Your task to perform on an android device: Clear the cart on ebay.com. Add "razer naga" to the cart on ebay.com, then select checkout. Image 0: 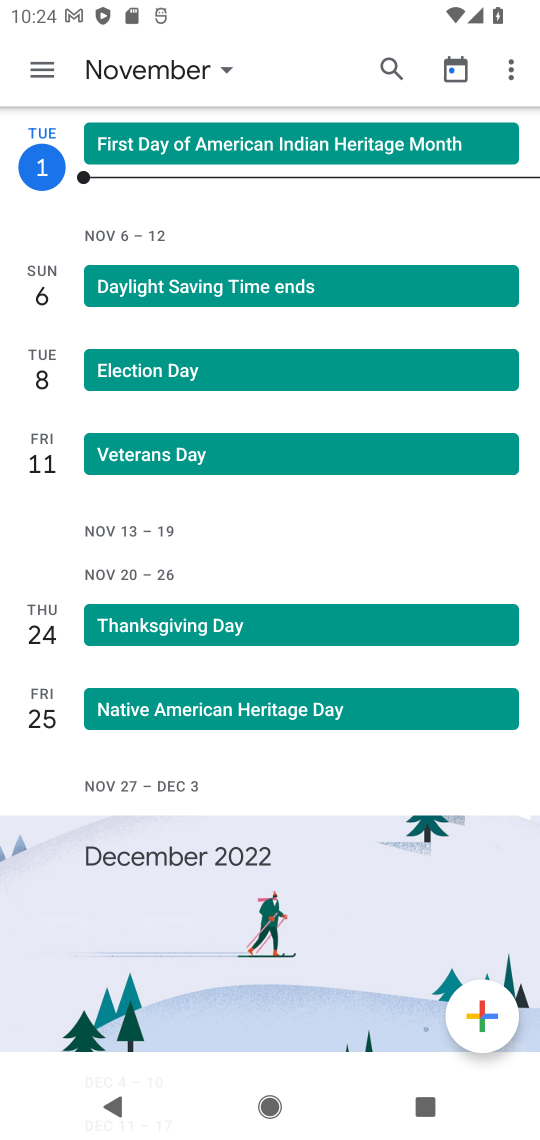
Step 0: press home button
Your task to perform on an android device: Clear the cart on ebay.com. Add "razer naga" to the cart on ebay.com, then select checkout. Image 1: 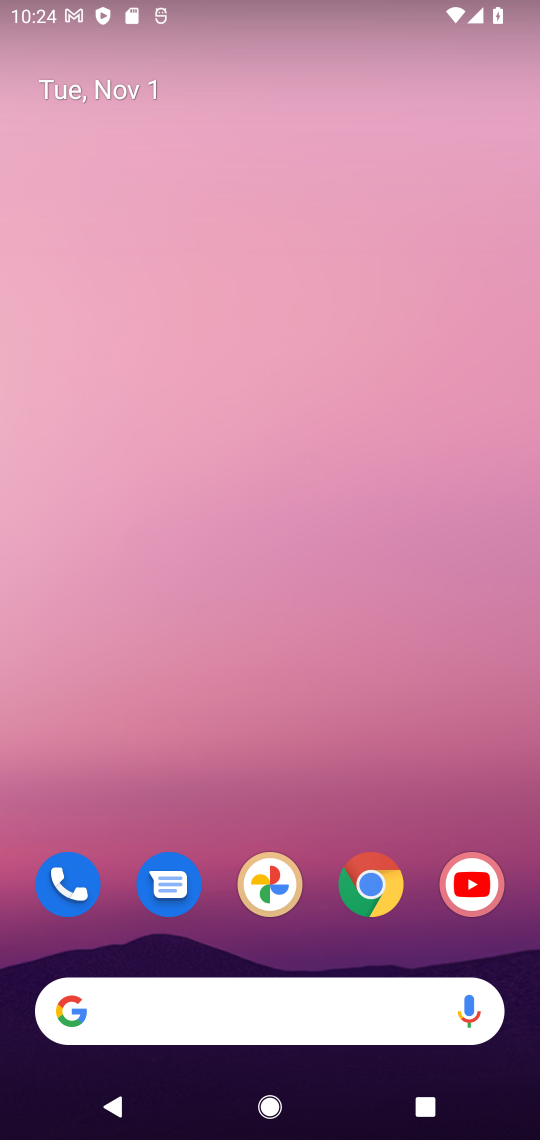
Step 1: click (368, 906)
Your task to perform on an android device: Clear the cart on ebay.com. Add "razer naga" to the cart on ebay.com, then select checkout. Image 2: 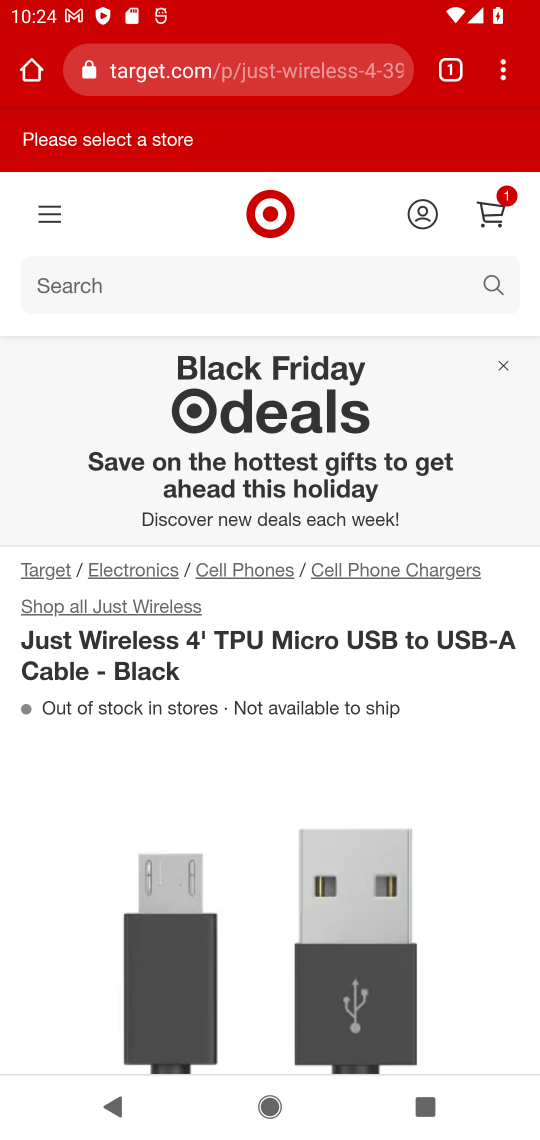
Step 2: click (233, 52)
Your task to perform on an android device: Clear the cart on ebay.com. Add "razer naga" to the cart on ebay.com, then select checkout. Image 3: 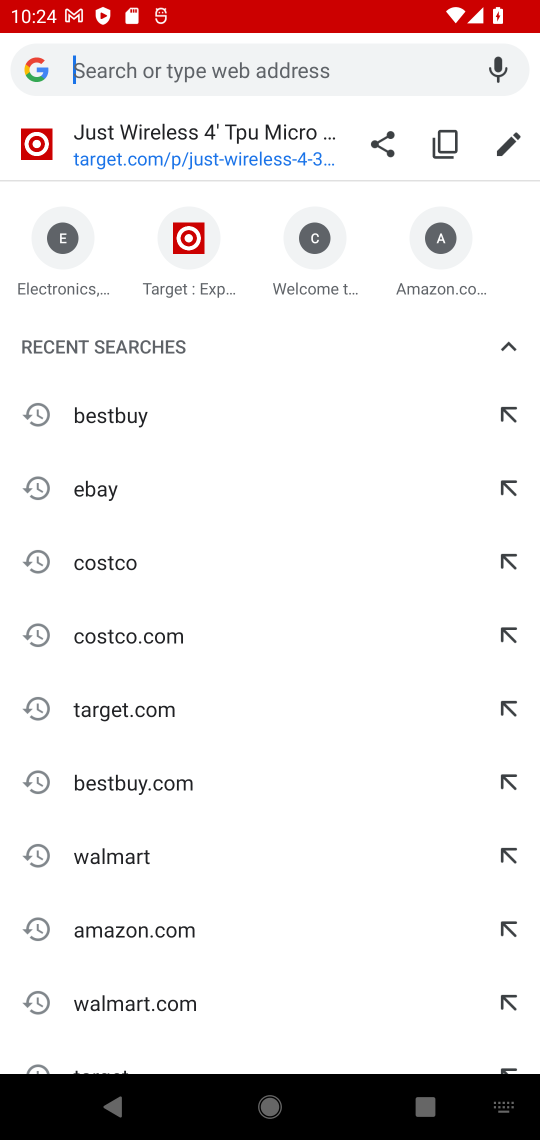
Step 3: type "ebay.com"
Your task to perform on an android device: Clear the cart on ebay.com. Add "razer naga" to the cart on ebay.com, then select checkout. Image 4: 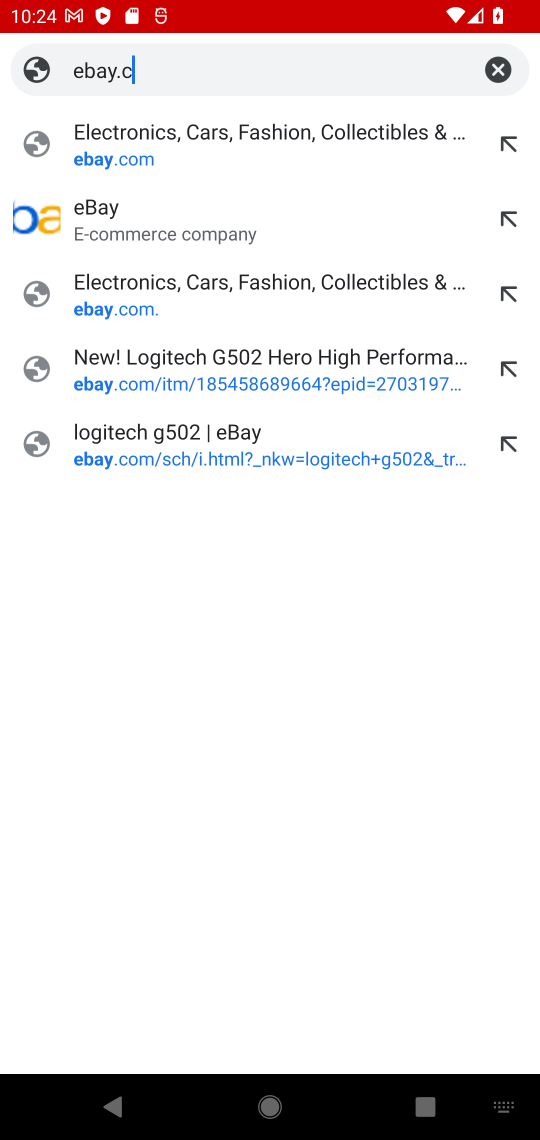
Step 4: type ""
Your task to perform on an android device: Clear the cart on ebay.com. Add "razer naga" to the cart on ebay.com, then select checkout. Image 5: 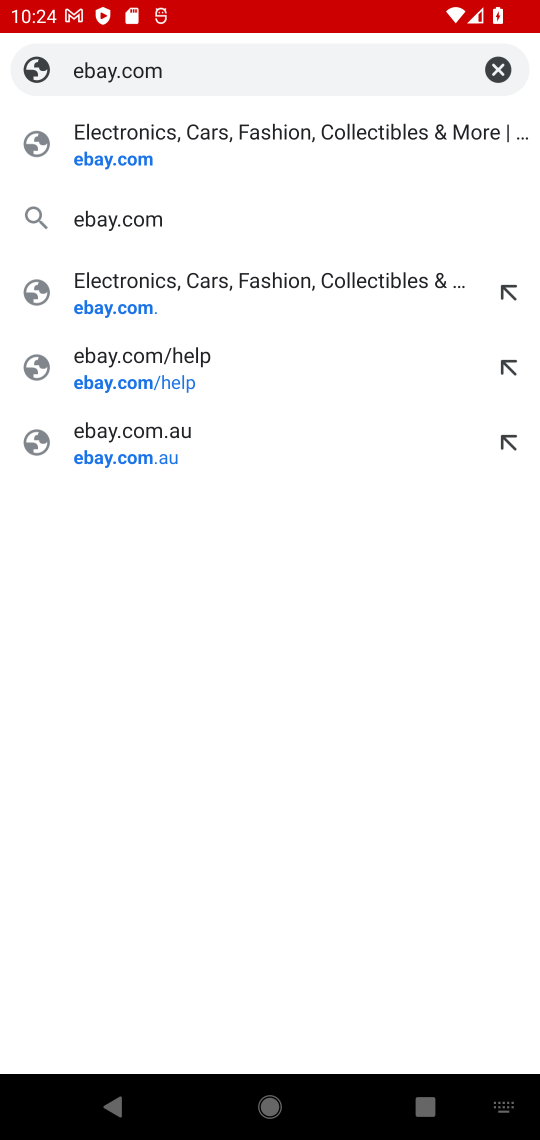
Step 5: press enter
Your task to perform on an android device: Clear the cart on ebay.com. Add "razer naga" to the cart on ebay.com, then select checkout. Image 6: 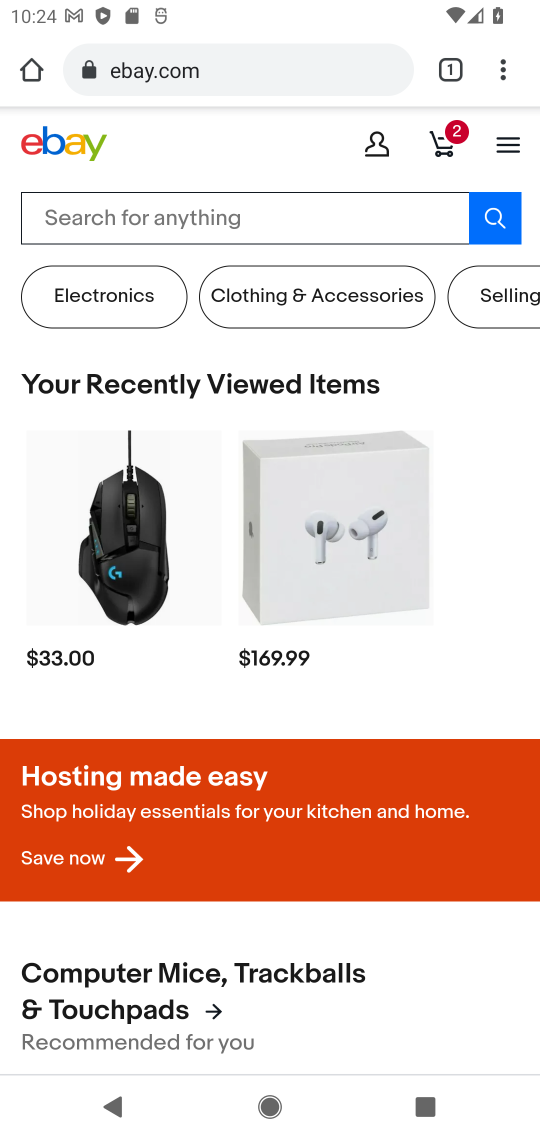
Step 6: click (438, 152)
Your task to perform on an android device: Clear the cart on ebay.com. Add "razer naga" to the cart on ebay.com, then select checkout. Image 7: 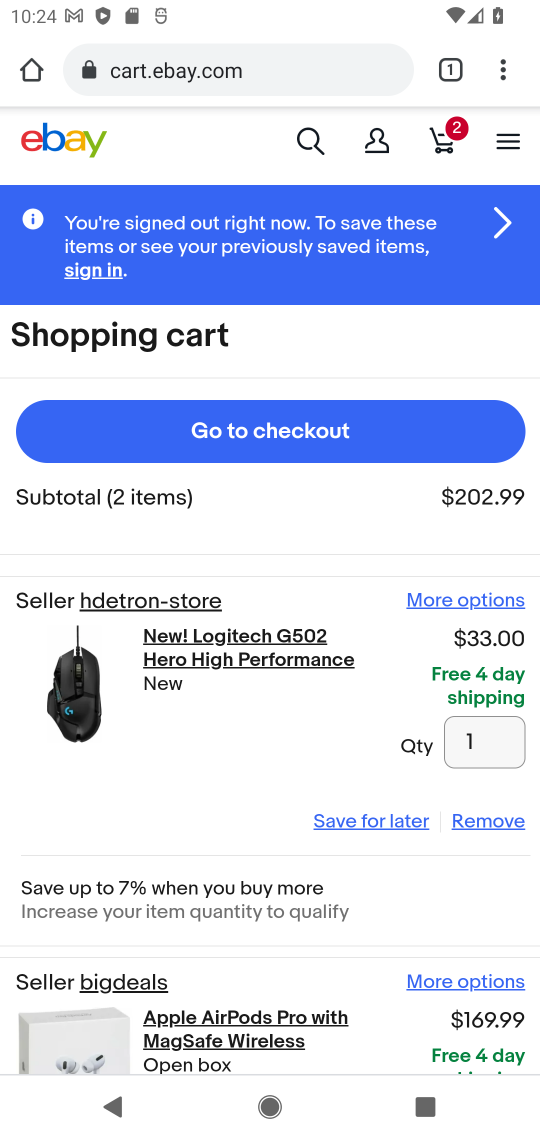
Step 7: click (495, 827)
Your task to perform on an android device: Clear the cart on ebay.com. Add "razer naga" to the cart on ebay.com, then select checkout. Image 8: 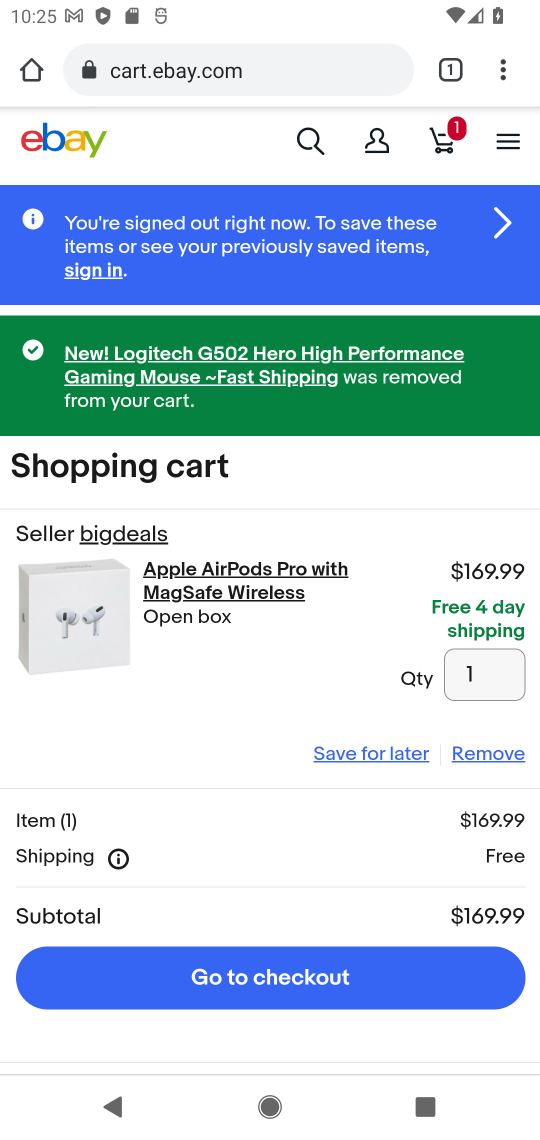
Step 8: click (488, 750)
Your task to perform on an android device: Clear the cart on ebay.com. Add "razer naga" to the cart on ebay.com, then select checkout. Image 9: 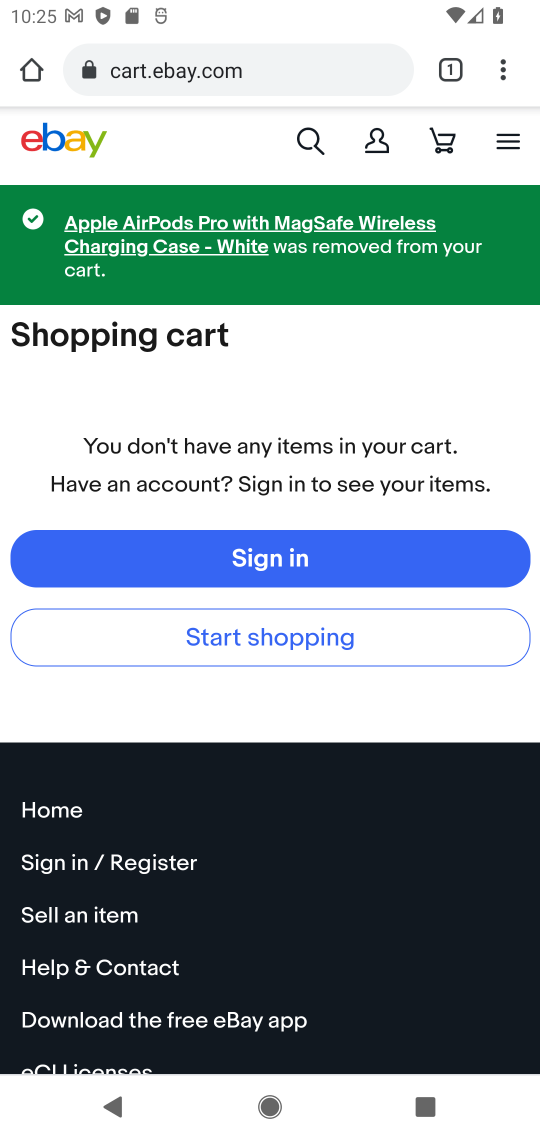
Step 9: click (302, 137)
Your task to perform on an android device: Clear the cart on ebay.com. Add "razer naga" to the cart on ebay.com, then select checkout. Image 10: 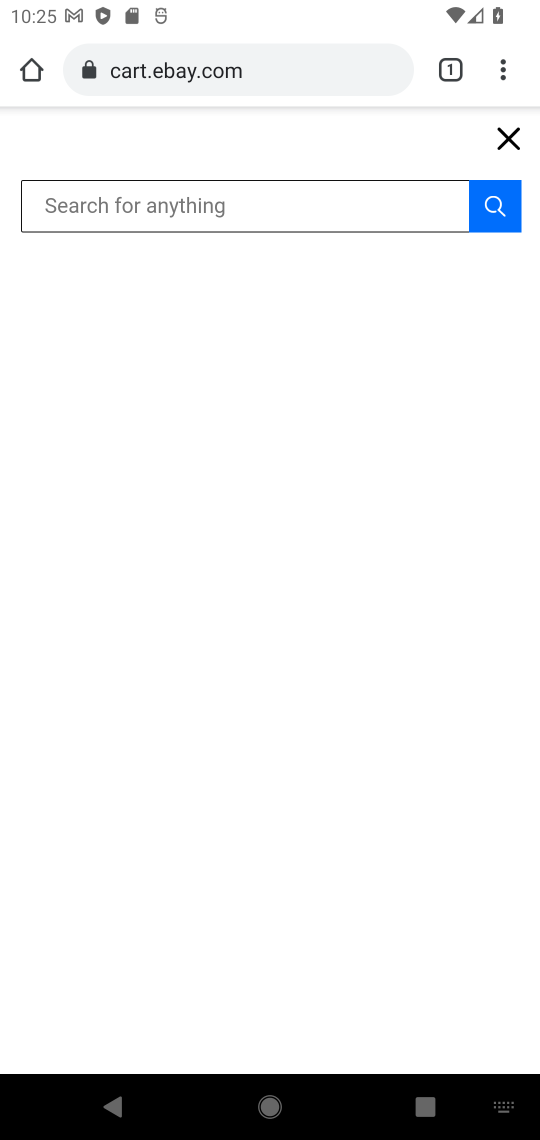
Step 10: type "razer naga"
Your task to perform on an android device: Clear the cart on ebay.com. Add "razer naga" to the cart on ebay.com, then select checkout. Image 11: 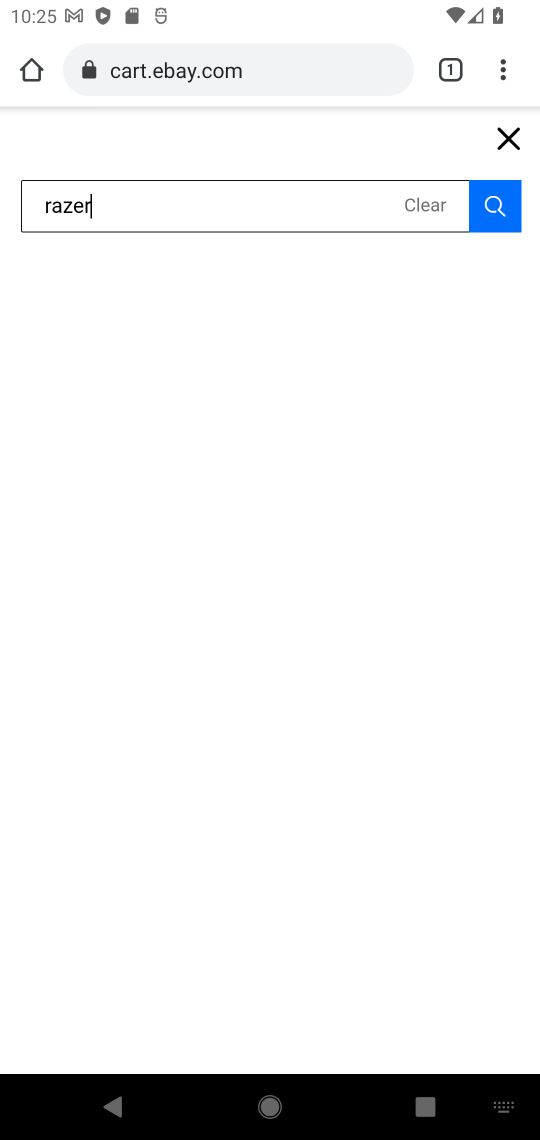
Step 11: type ""
Your task to perform on an android device: Clear the cart on ebay.com. Add "razer naga" to the cart on ebay.com, then select checkout. Image 12: 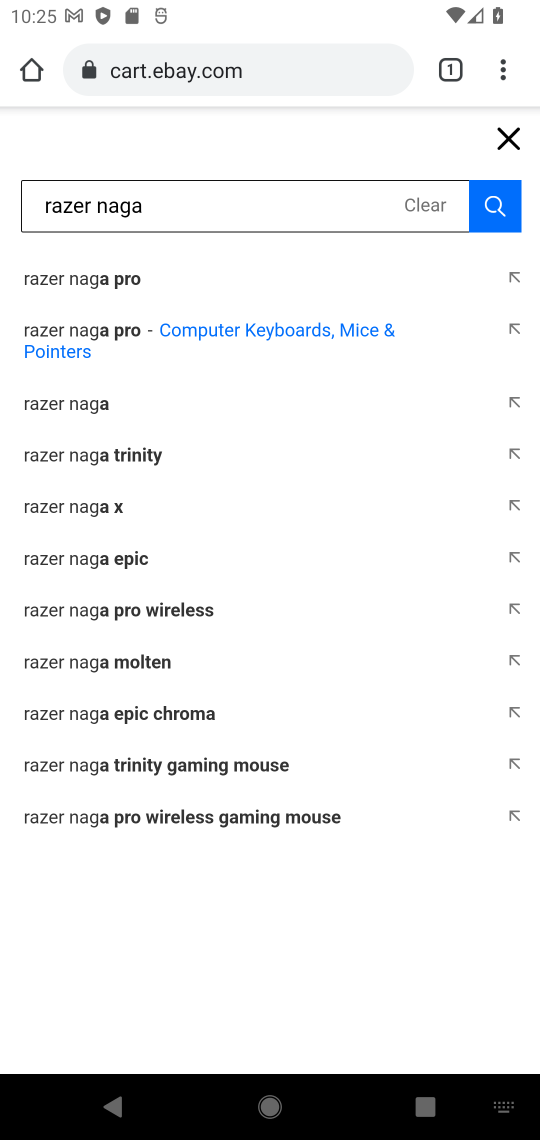
Step 12: press enter
Your task to perform on an android device: Clear the cart on ebay.com. Add "razer naga" to the cart on ebay.com, then select checkout. Image 13: 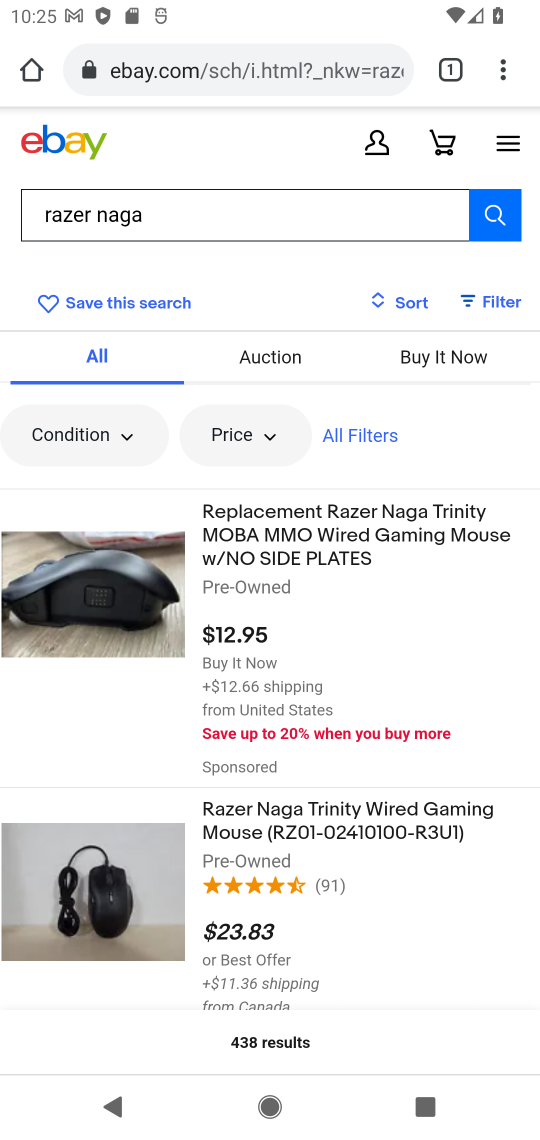
Step 13: click (320, 816)
Your task to perform on an android device: Clear the cart on ebay.com. Add "razer naga" to the cart on ebay.com, then select checkout. Image 14: 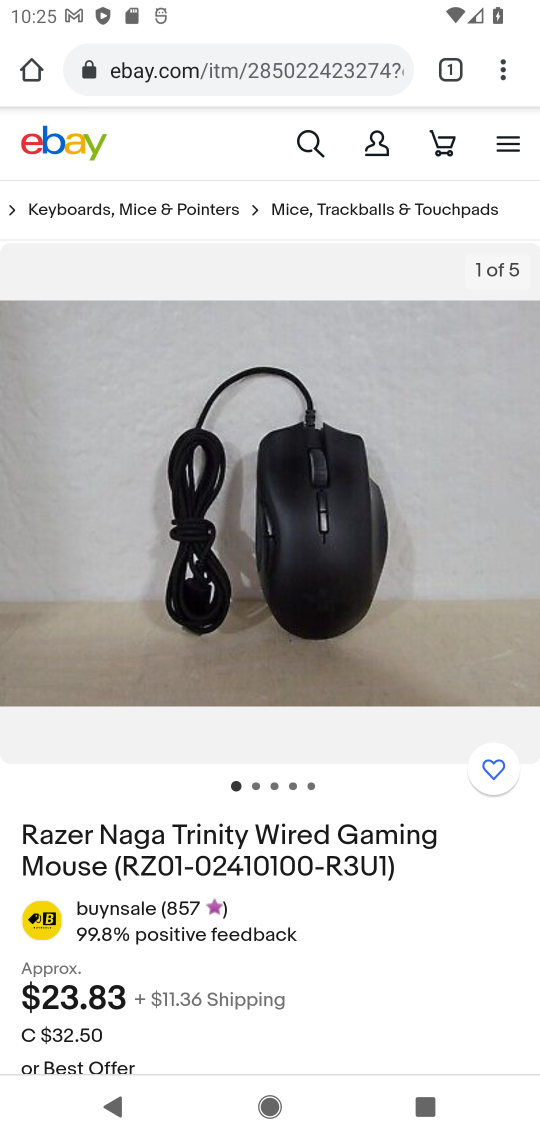
Step 14: drag from (201, 964) to (173, 525)
Your task to perform on an android device: Clear the cart on ebay.com. Add "razer naga" to the cart on ebay.com, then select checkout. Image 15: 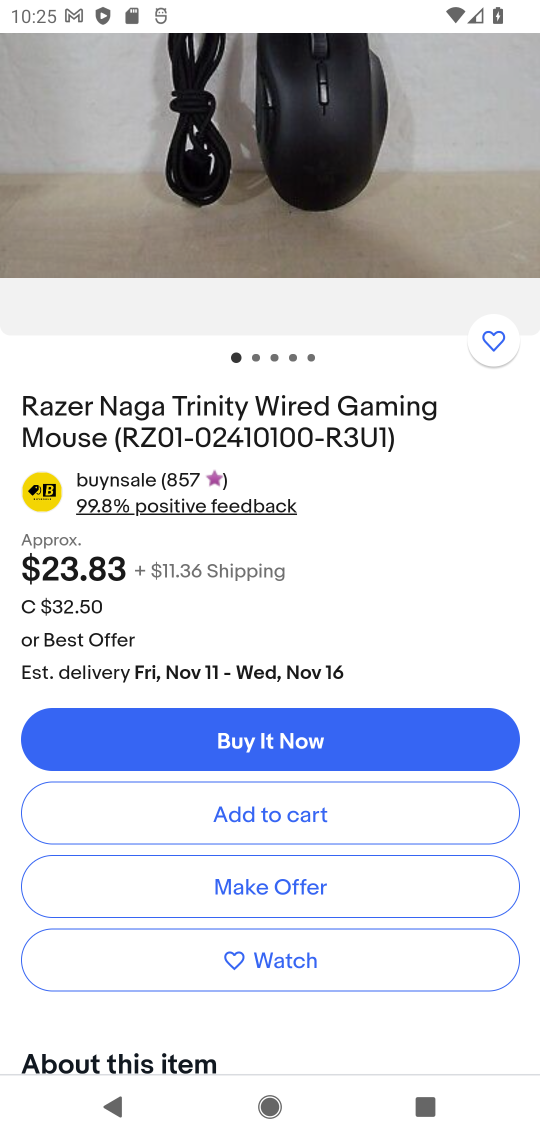
Step 15: click (324, 829)
Your task to perform on an android device: Clear the cart on ebay.com. Add "razer naga" to the cart on ebay.com, then select checkout. Image 16: 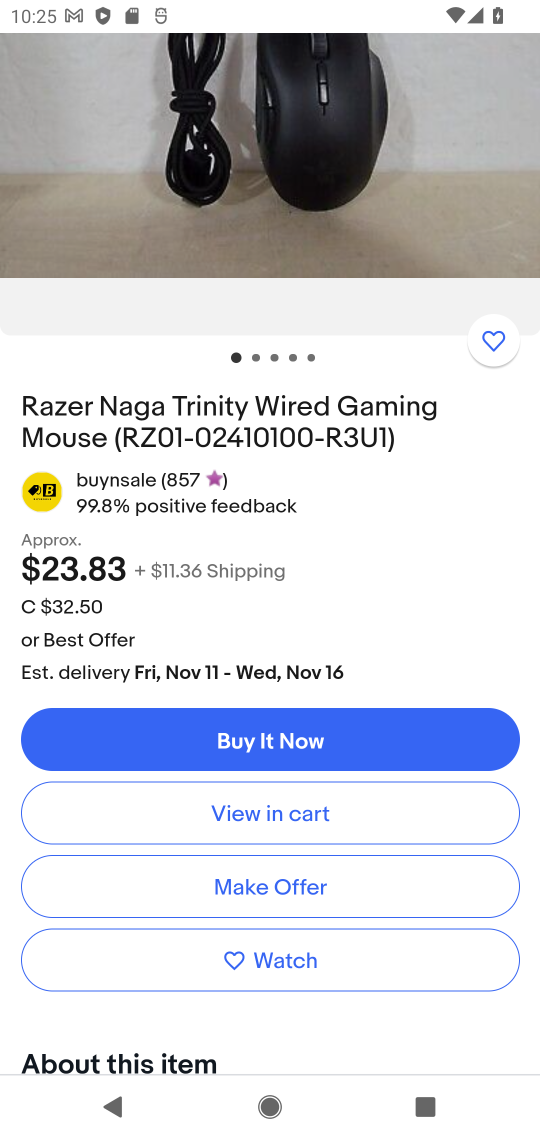
Step 16: click (319, 816)
Your task to perform on an android device: Clear the cart on ebay.com. Add "razer naga" to the cart on ebay.com, then select checkout. Image 17: 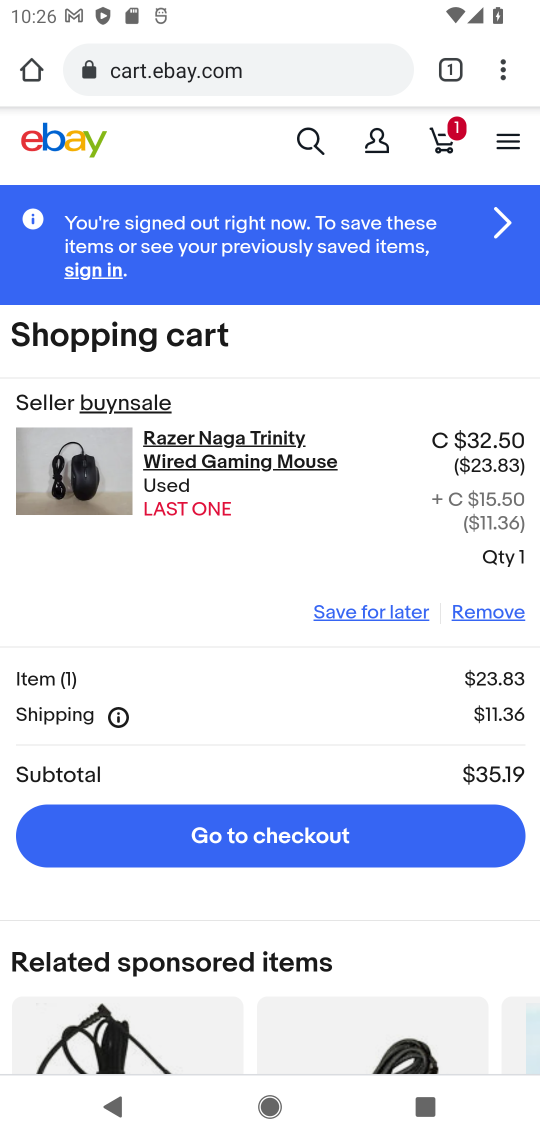
Step 17: click (322, 844)
Your task to perform on an android device: Clear the cart on ebay.com. Add "razer naga" to the cart on ebay.com, then select checkout. Image 18: 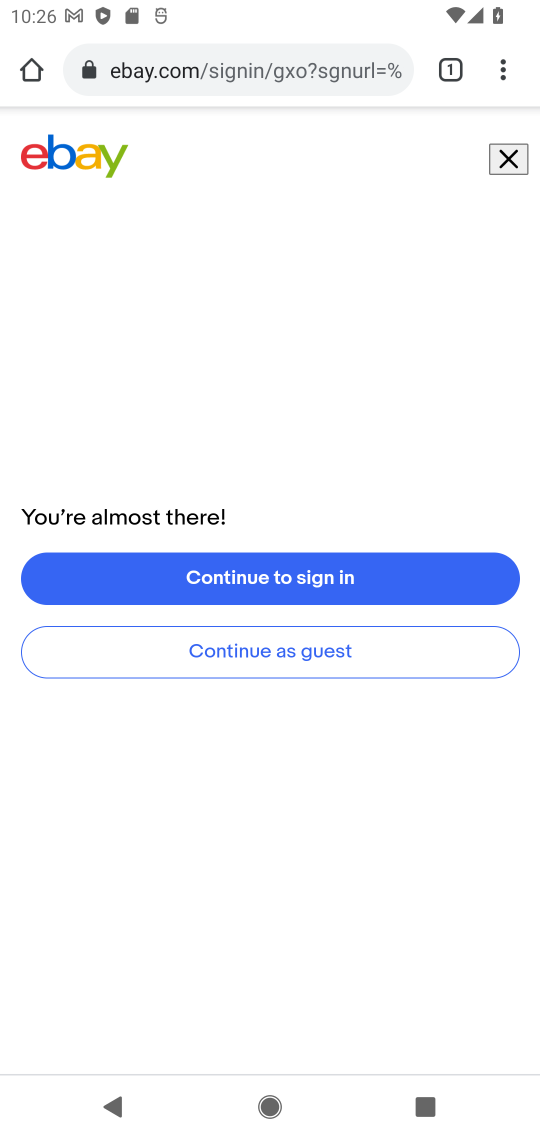
Step 18: click (320, 658)
Your task to perform on an android device: Clear the cart on ebay.com. Add "razer naga" to the cart on ebay.com, then select checkout. Image 19: 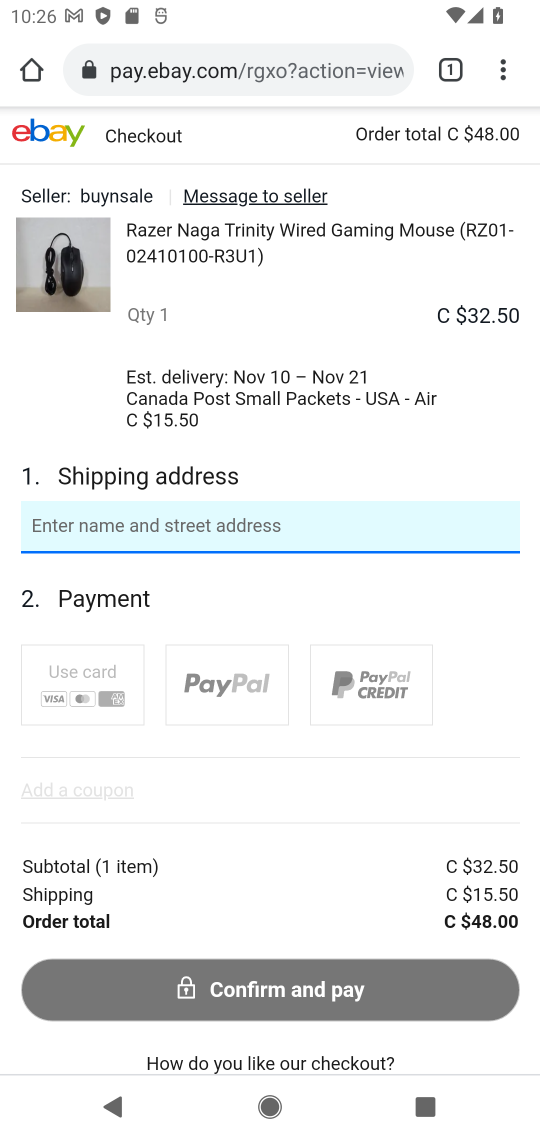
Step 19: task complete